Your task to perform on an android device: see tabs open on other devices in the chrome app Image 0: 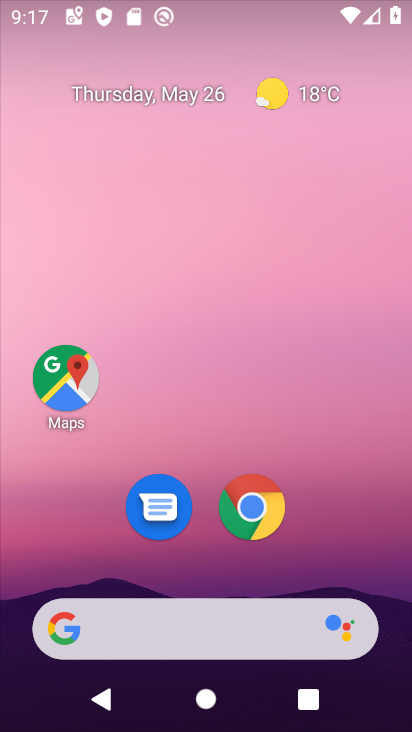
Step 0: drag from (242, 648) to (191, 129)
Your task to perform on an android device: see tabs open on other devices in the chrome app Image 1: 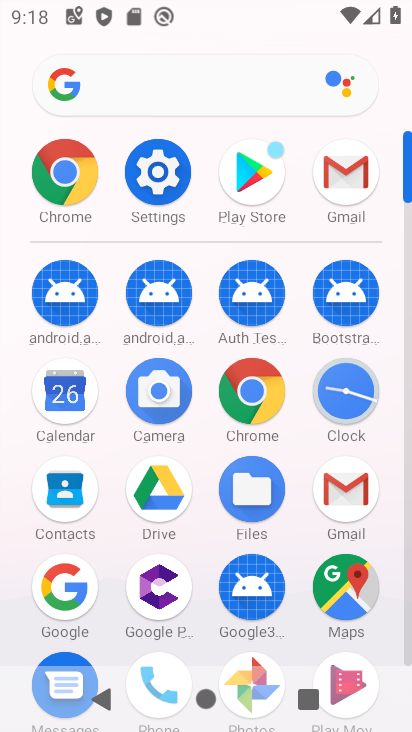
Step 1: click (50, 168)
Your task to perform on an android device: see tabs open on other devices in the chrome app Image 2: 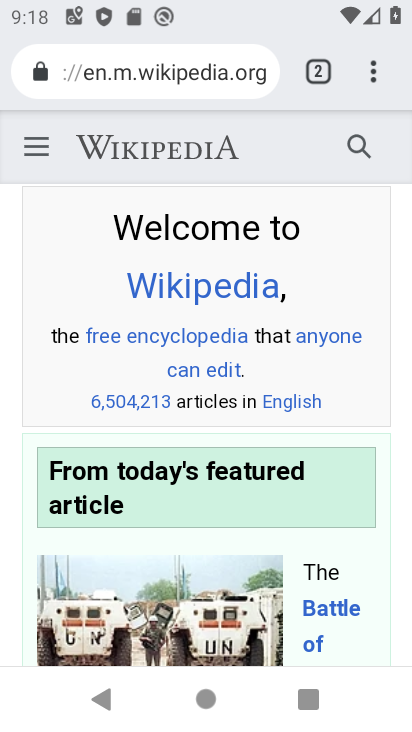
Step 2: click (357, 87)
Your task to perform on an android device: see tabs open on other devices in the chrome app Image 3: 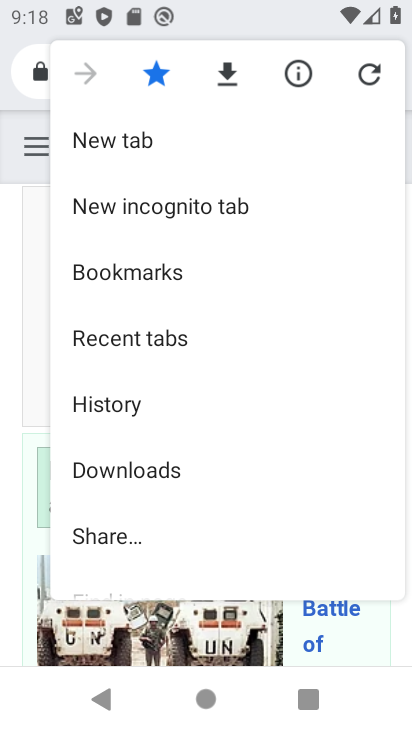
Step 3: drag from (199, 463) to (230, 284)
Your task to perform on an android device: see tabs open on other devices in the chrome app Image 4: 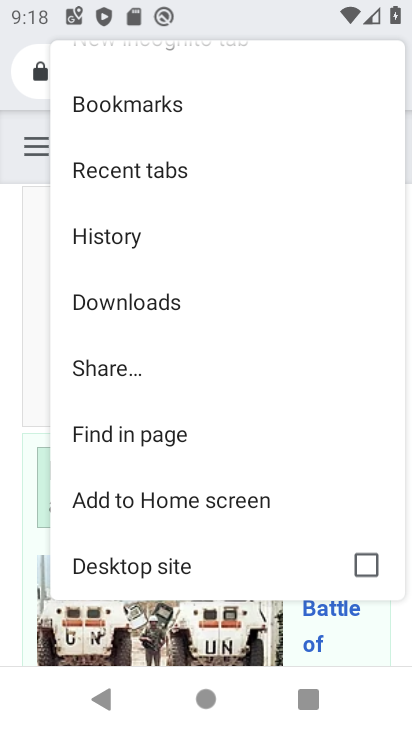
Step 4: click (26, 336)
Your task to perform on an android device: see tabs open on other devices in the chrome app Image 5: 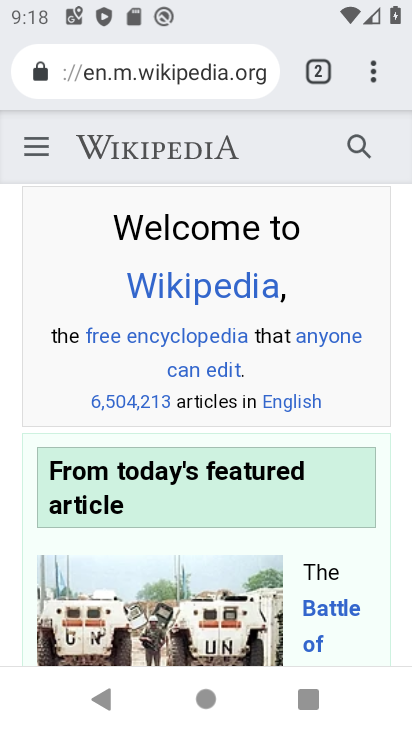
Step 5: click (329, 57)
Your task to perform on an android device: see tabs open on other devices in the chrome app Image 6: 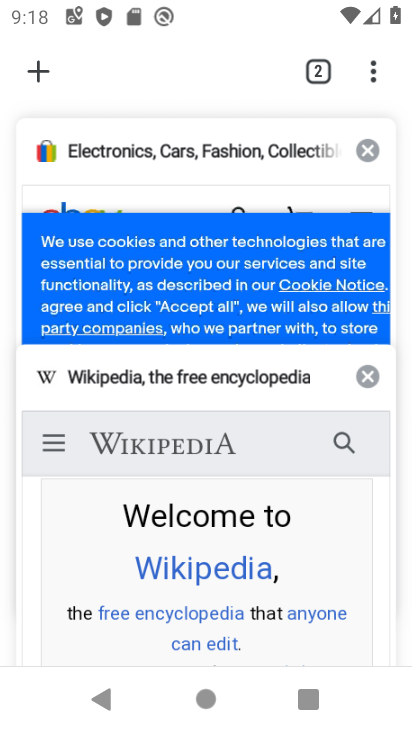
Step 6: click (28, 69)
Your task to perform on an android device: see tabs open on other devices in the chrome app Image 7: 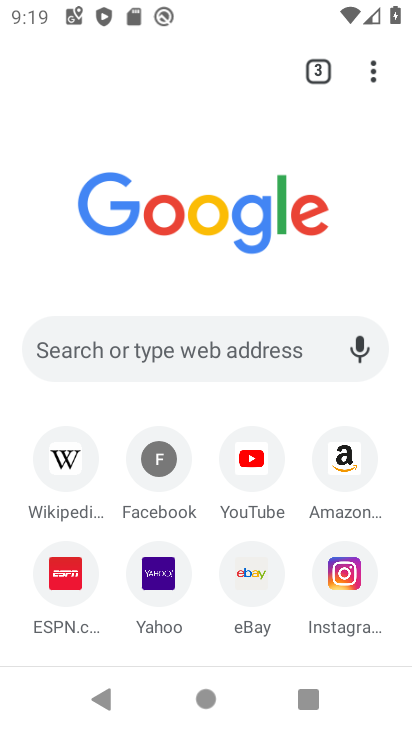
Step 7: task complete